Your task to perform on an android device: open a new tab in the chrome app Image 0: 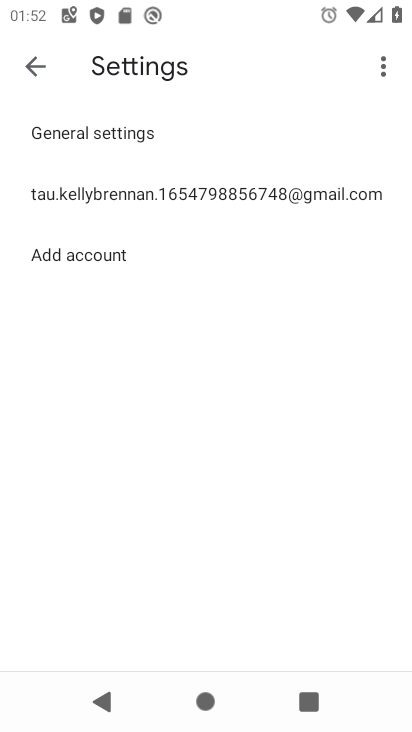
Step 0: press home button
Your task to perform on an android device: open a new tab in the chrome app Image 1: 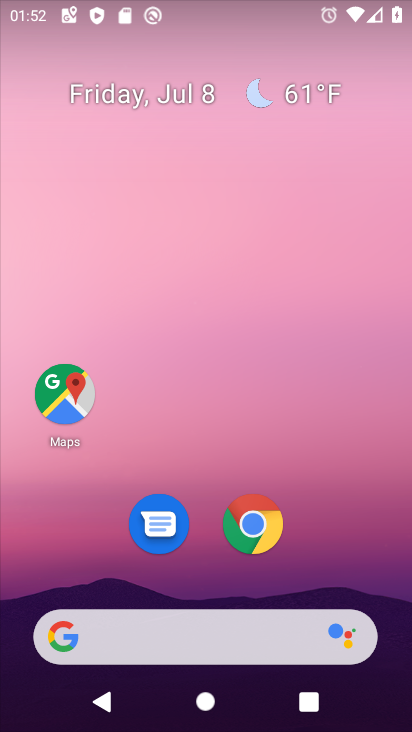
Step 1: click (263, 536)
Your task to perform on an android device: open a new tab in the chrome app Image 2: 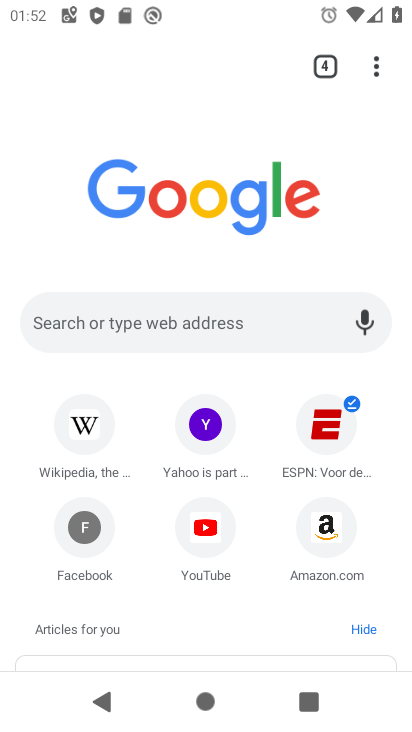
Step 2: click (378, 65)
Your task to perform on an android device: open a new tab in the chrome app Image 3: 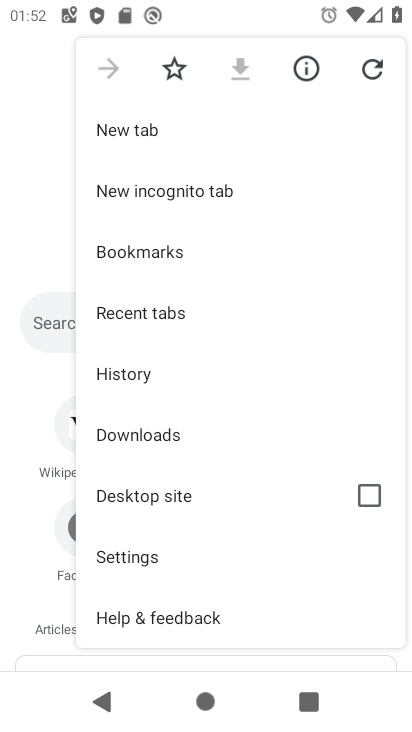
Step 3: click (248, 127)
Your task to perform on an android device: open a new tab in the chrome app Image 4: 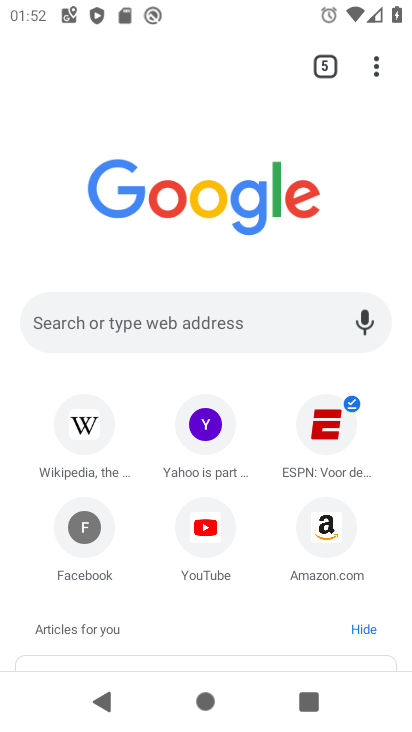
Step 4: task complete